Your task to perform on an android device: Open CNN.com Image 0: 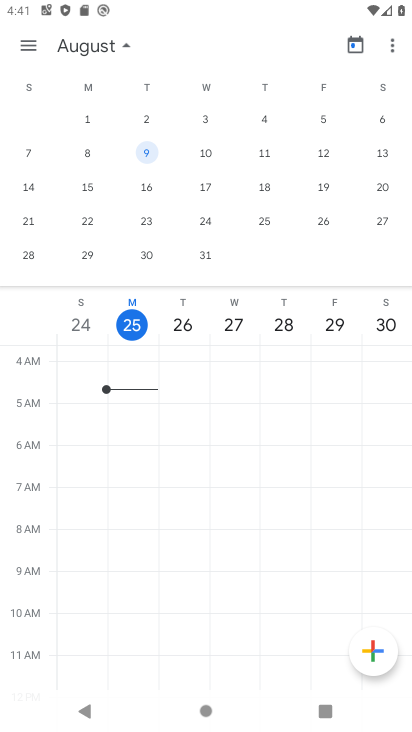
Step 0: press home button
Your task to perform on an android device: Open CNN.com Image 1: 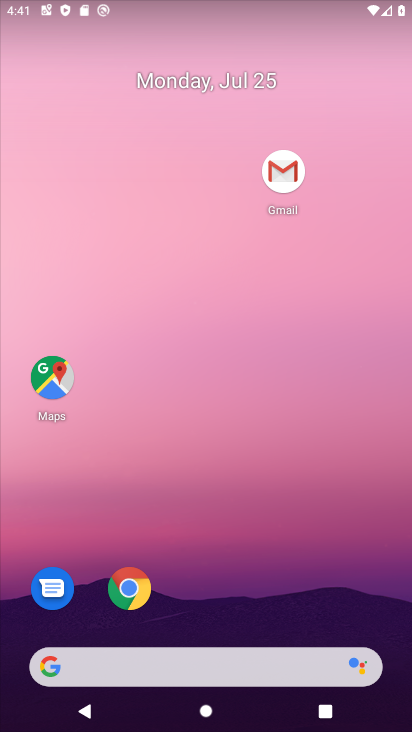
Step 1: drag from (214, 546) to (219, 60)
Your task to perform on an android device: Open CNN.com Image 2: 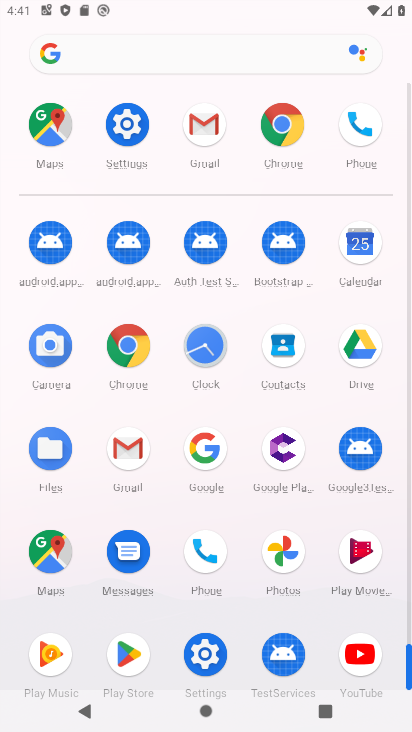
Step 2: click (285, 122)
Your task to perform on an android device: Open CNN.com Image 3: 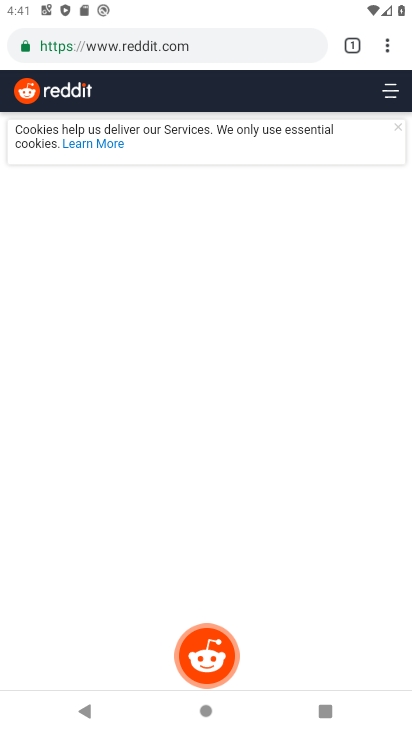
Step 3: click (258, 50)
Your task to perform on an android device: Open CNN.com Image 4: 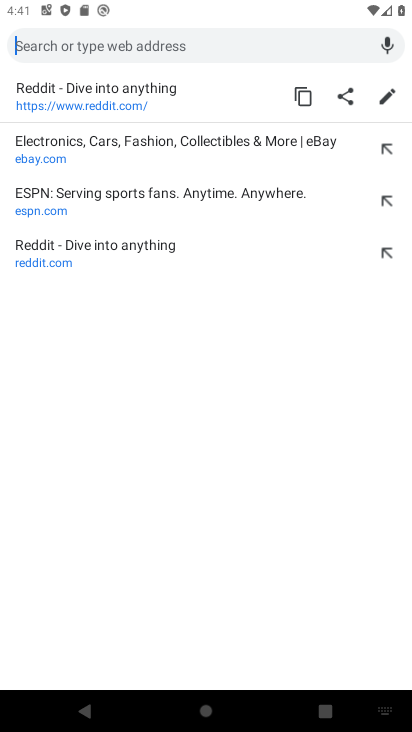
Step 4: type "cnn.com"
Your task to perform on an android device: Open CNN.com Image 5: 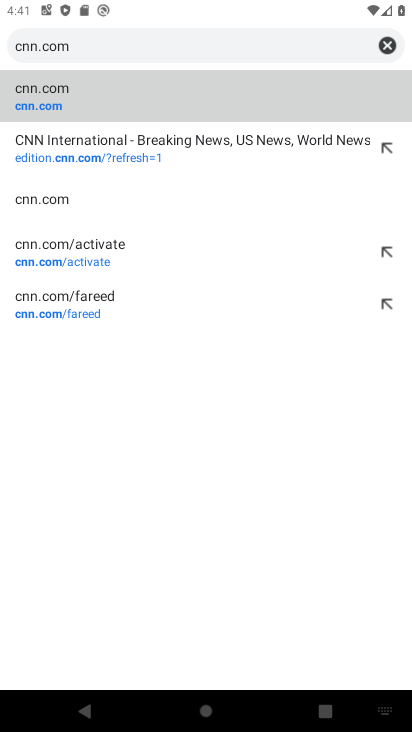
Step 5: click (103, 98)
Your task to perform on an android device: Open CNN.com Image 6: 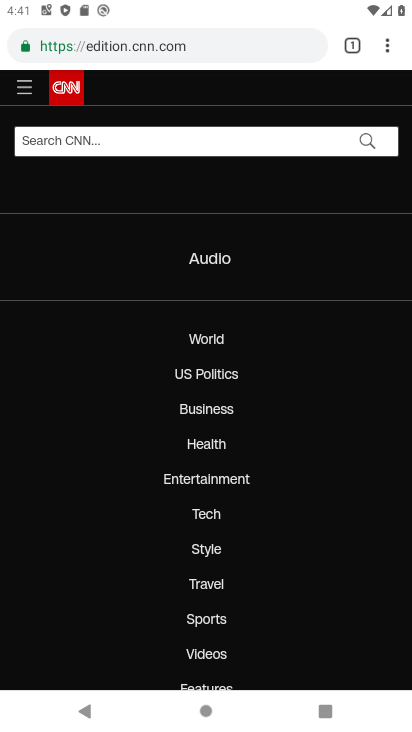
Step 6: task complete